Your task to perform on an android device: change notifications settings Image 0: 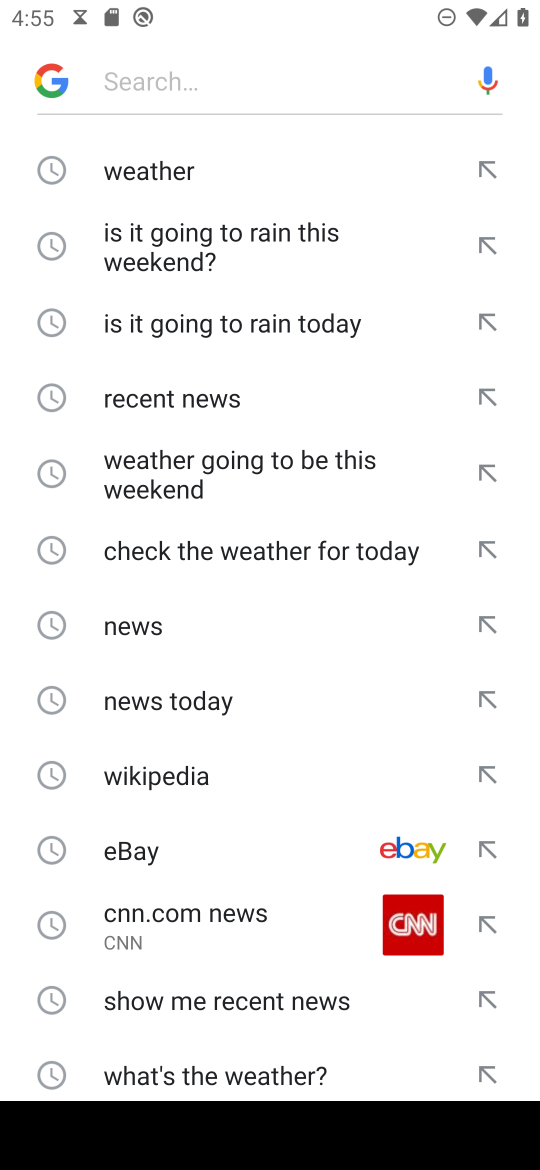
Step 0: press home button
Your task to perform on an android device: change notifications settings Image 1: 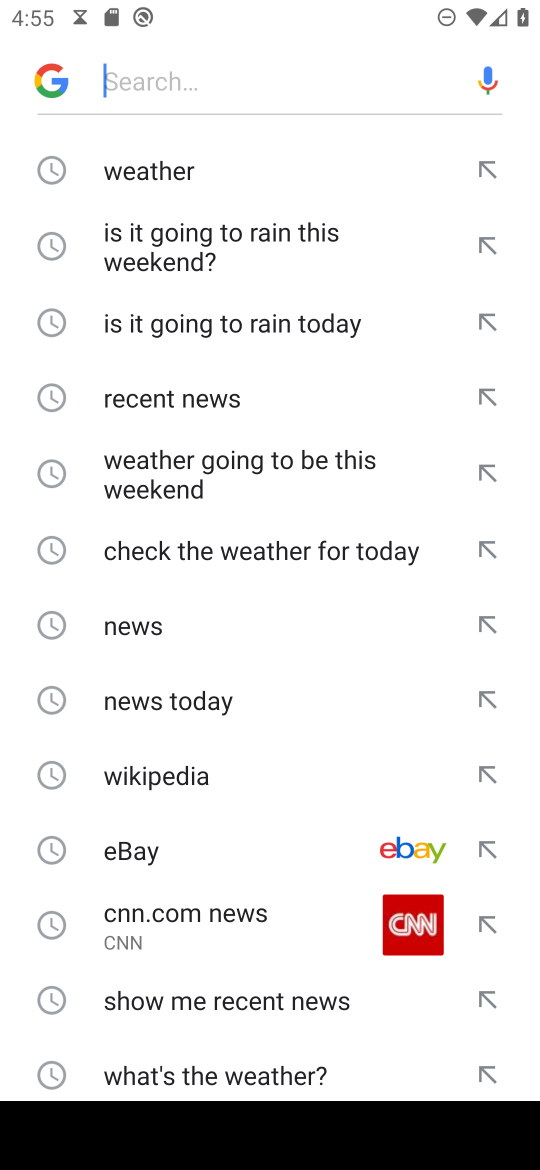
Step 1: press home button
Your task to perform on an android device: change notifications settings Image 2: 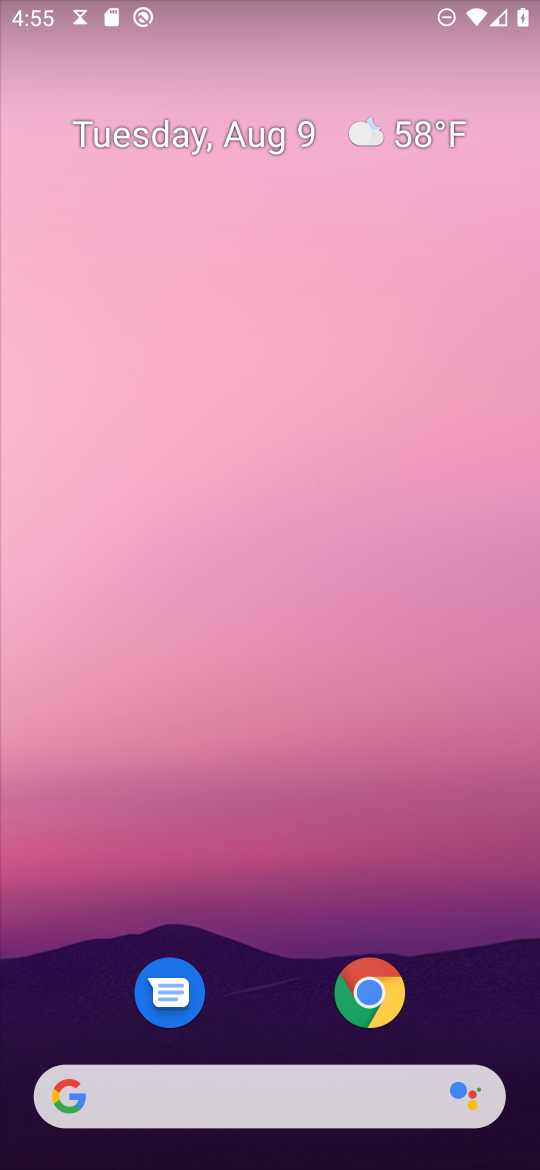
Step 2: drag from (286, 1102) to (231, 176)
Your task to perform on an android device: change notifications settings Image 3: 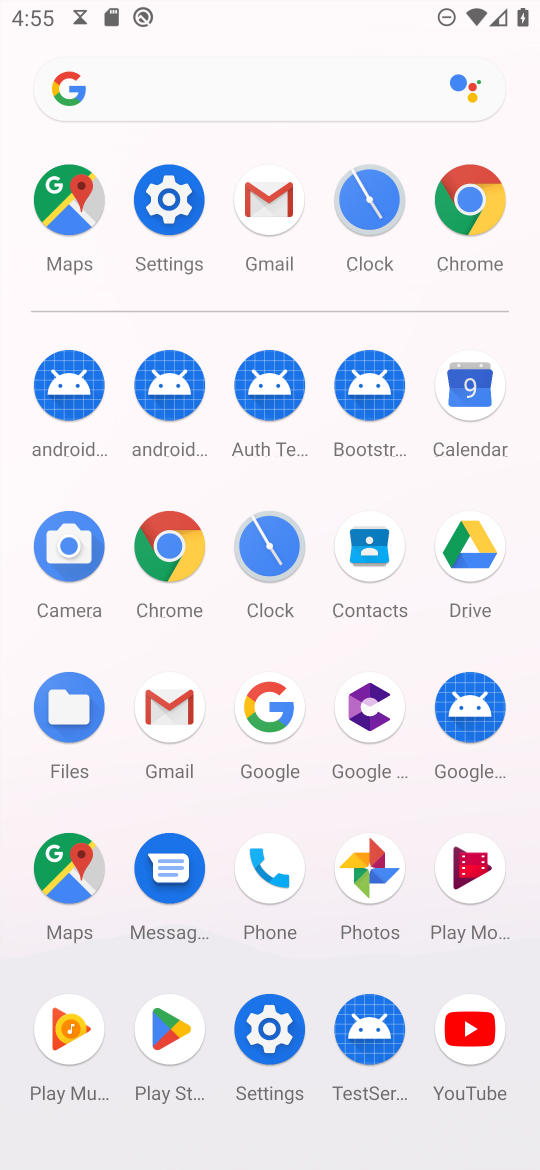
Step 3: click (138, 195)
Your task to perform on an android device: change notifications settings Image 4: 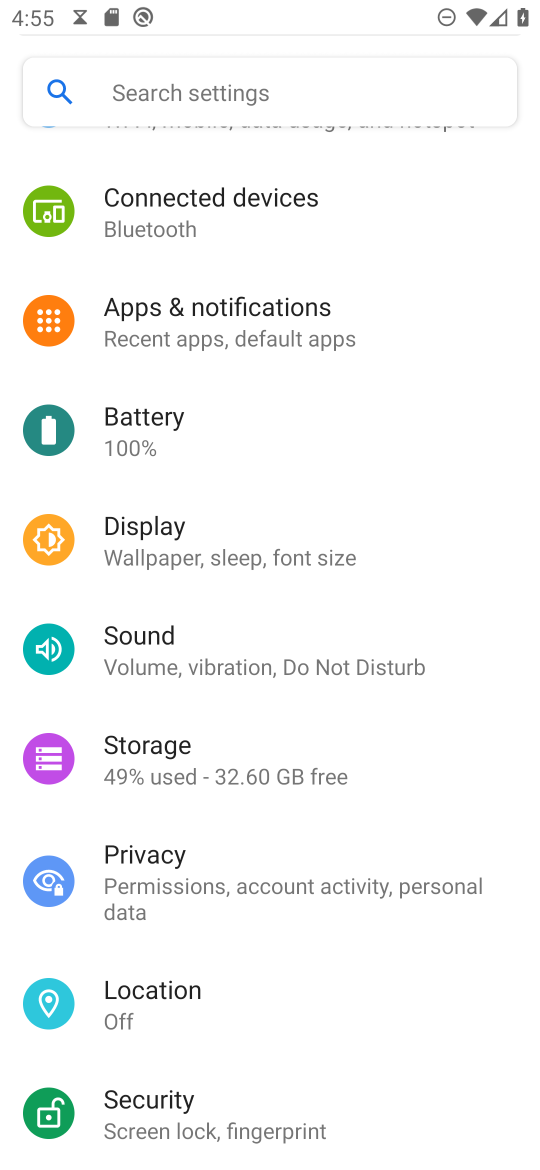
Step 4: click (138, 195)
Your task to perform on an android device: change notifications settings Image 5: 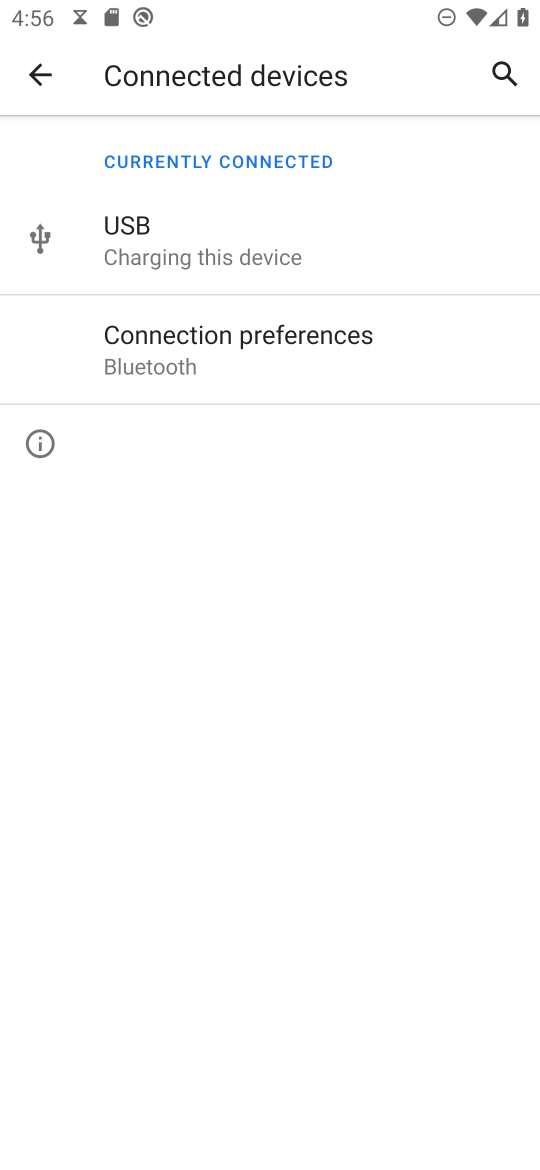
Step 5: press back button
Your task to perform on an android device: change notifications settings Image 6: 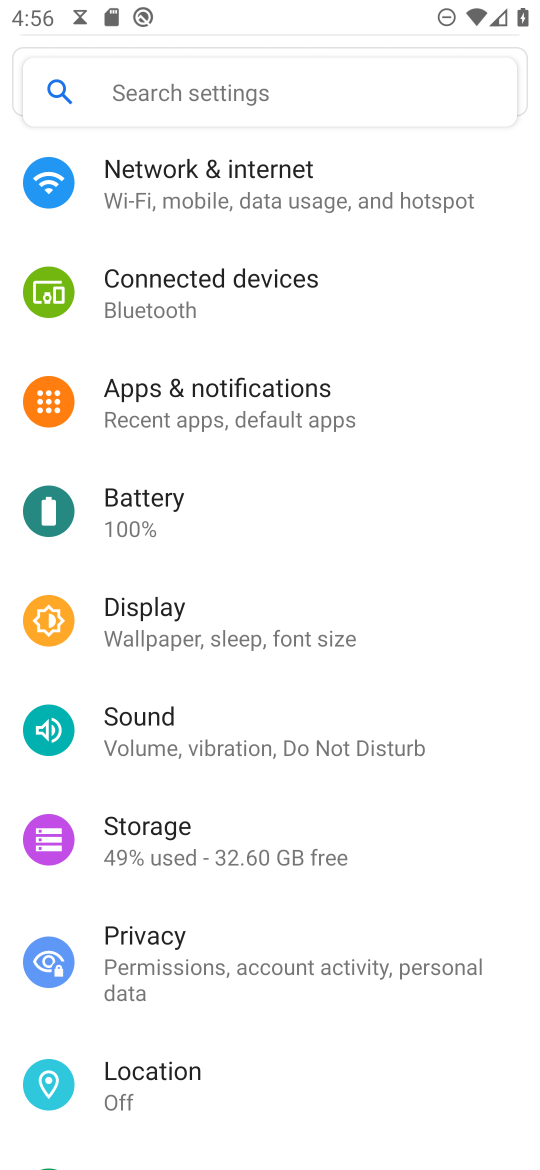
Step 6: click (281, 397)
Your task to perform on an android device: change notifications settings Image 7: 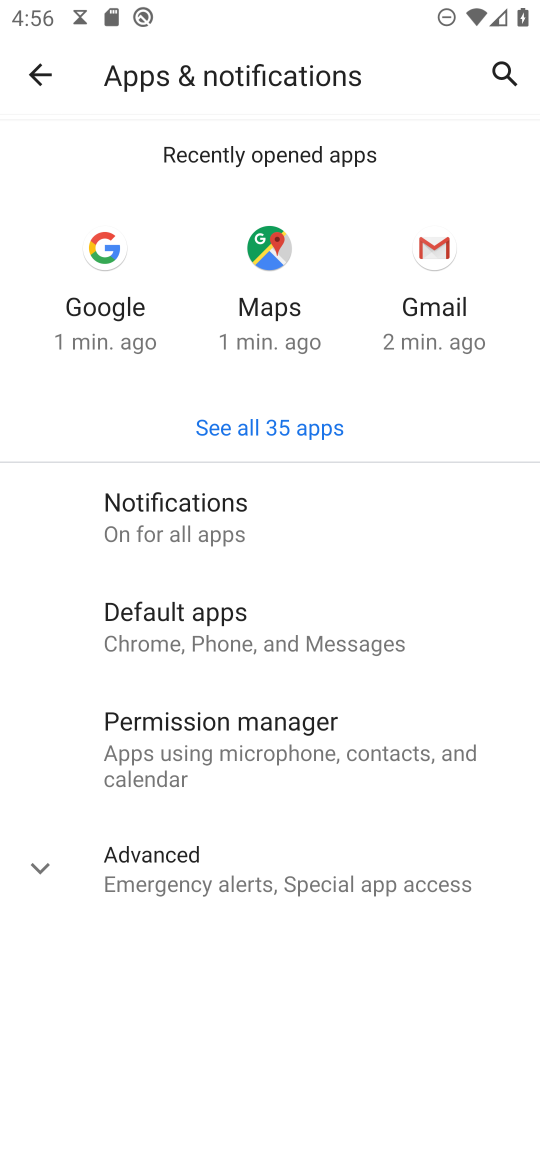
Step 7: click (274, 547)
Your task to perform on an android device: change notifications settings Image 8: 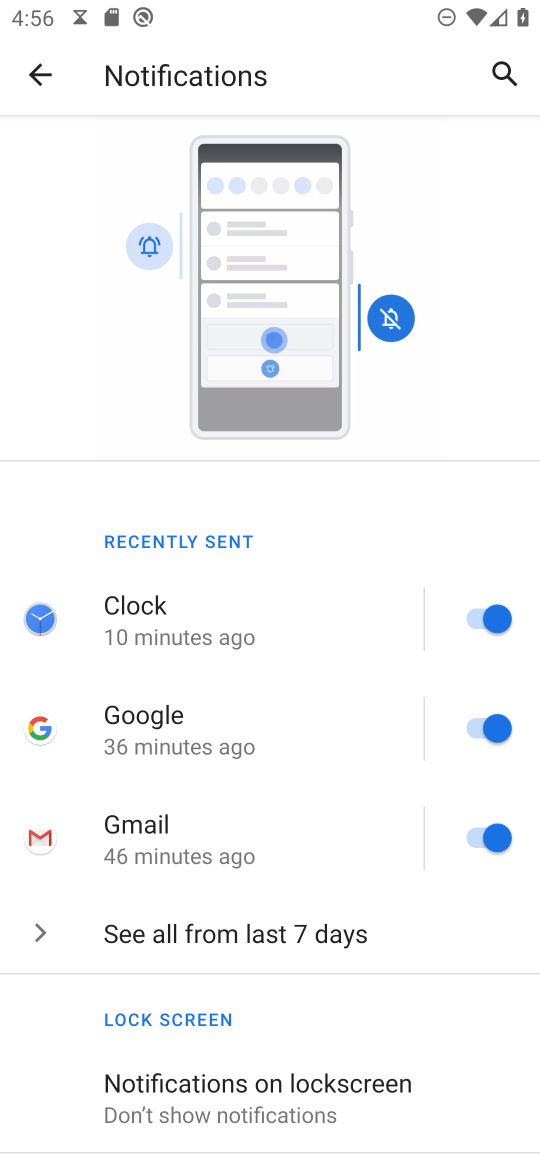
Step 8: click (478, 613)
Your task to perform on an android device: change notifications settings Image 9: 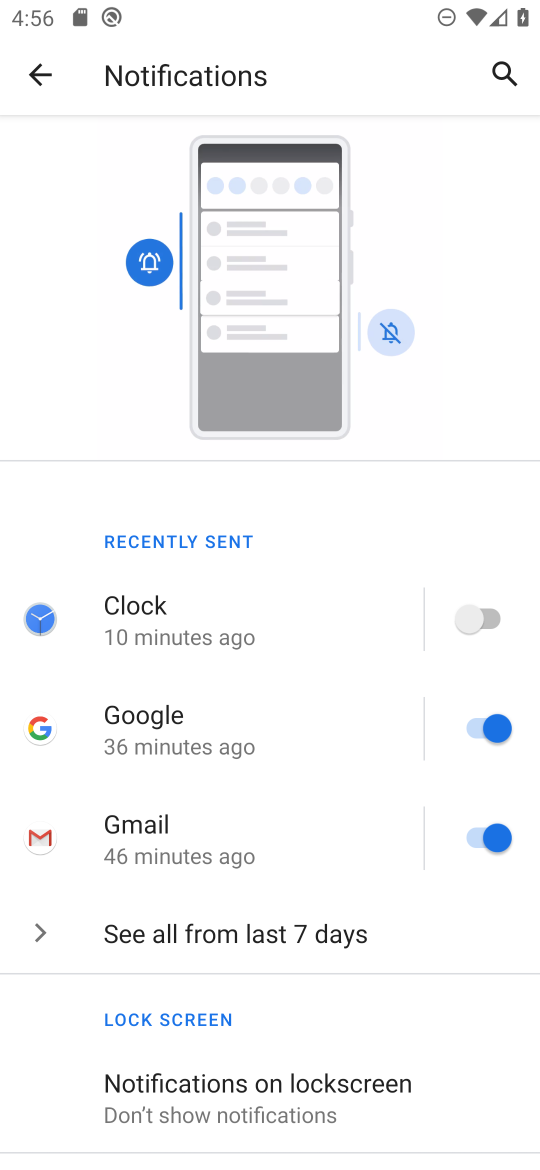
Step 9: task complete